Your task to perform on an android device: Search for vegetarian restaurants on Maps Image 0: 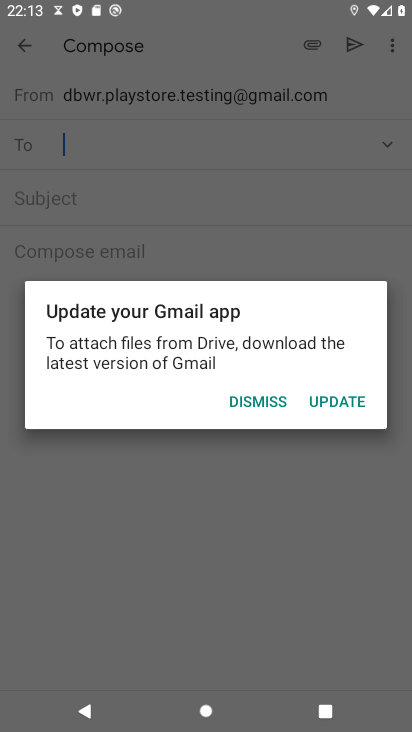
Step 0: press home button
Your task to perform on an android device: Search for vegetarian restaurants on Maps Image 1: 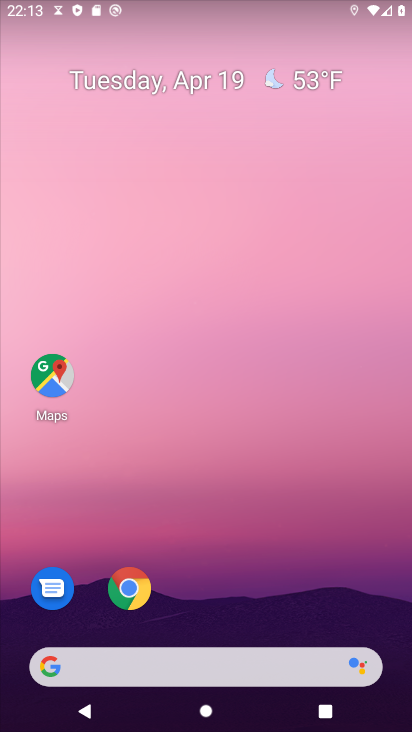
Step 1: click (53, 378)
Your task to perform on an android device: Search for vegetarian restaurants on Maps Image 2: 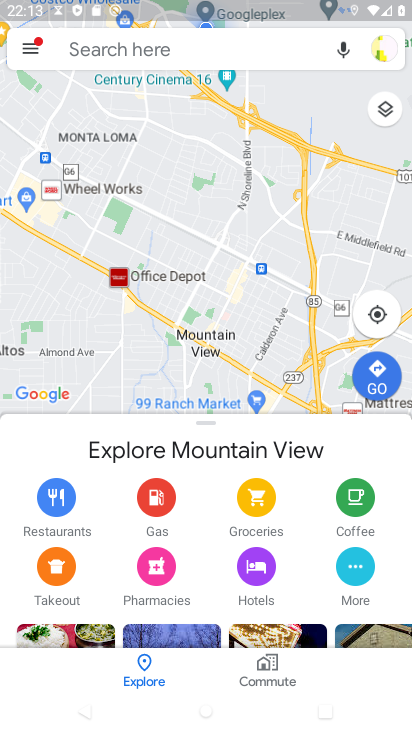
Step 2: click (225, 51)
Your task to perform on an android device: Search for vegetarian restaurants on Maps Image 3: 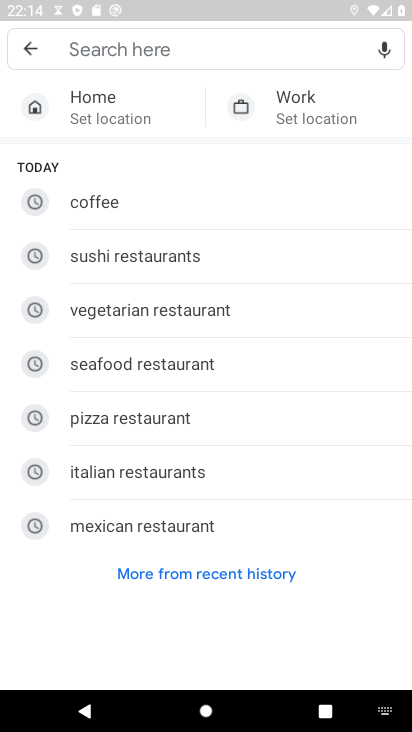
Step 3: type "vegetarian restaurants"
Your task to perform on an android device: Search for vegetarian restaurants on Maps Image 4: 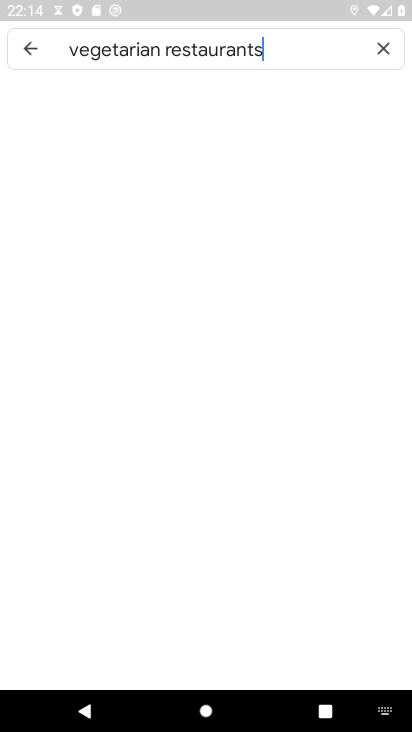
Step 4: type ""
Your task to perform on an android device: Search for vegetarian restaurants on Maps Image 5: 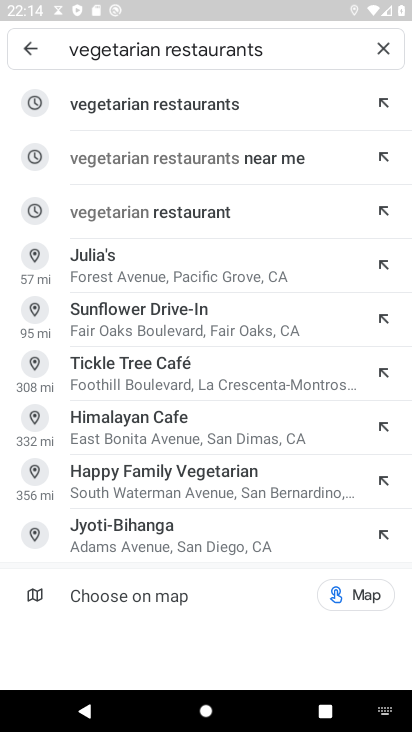
Step 5: click (196, 107)
Your task to perform on an android device: Search for vegetarian restaurants on Maps Image 6: 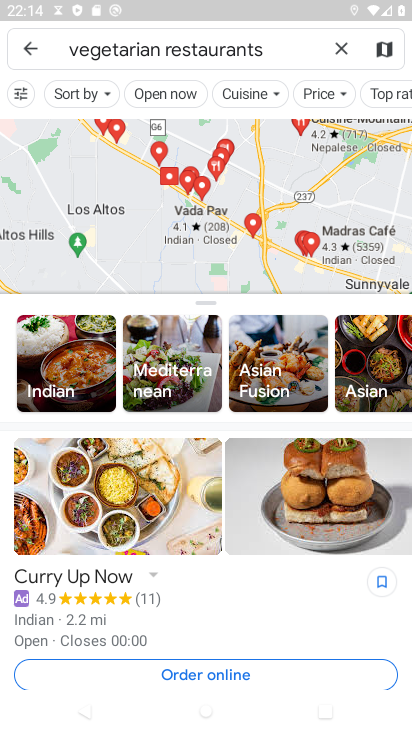
Step 6: task complete